Your task to perform on an android device: check data usage Image 0: 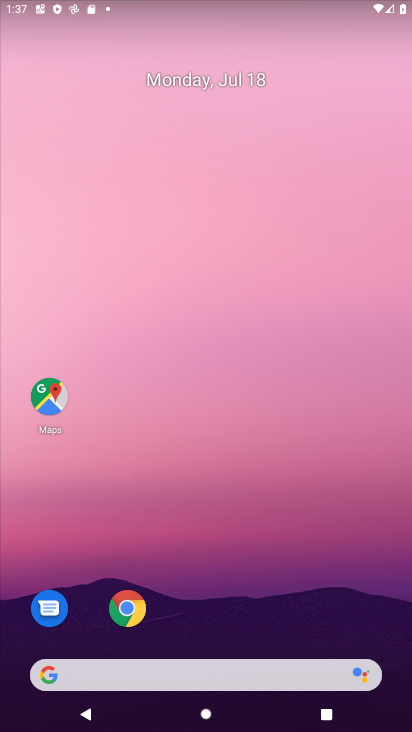
Step 0: drag from (381, 635) to (2, 169)
Your task to perform on an android device: check data usage Image 1: 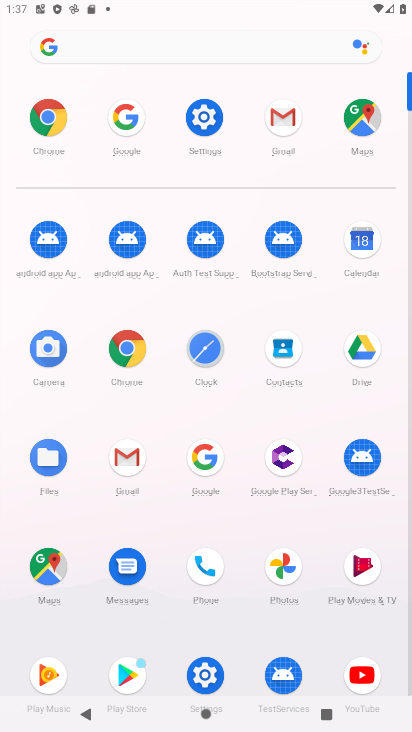
Step 1: click (213, 658)
Your task to perform on an android device: check data usage Image 2: 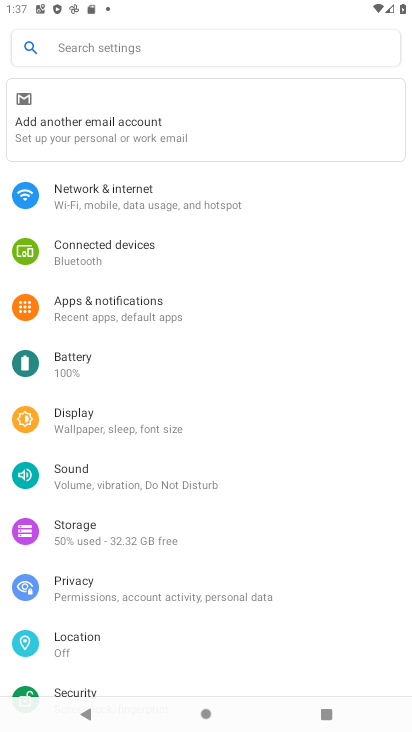
Step 2: click (130, 196)
Your task to perform on an android device: check data usage Image 3: 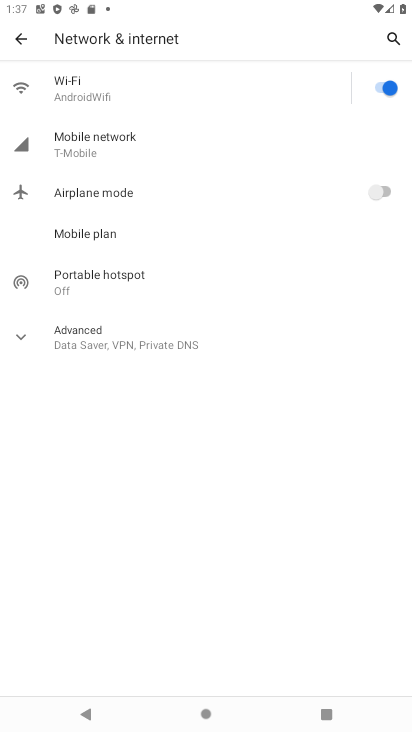
Step 3: click (113, 133)
Your task to perform on an android device: check data usage Image 4: 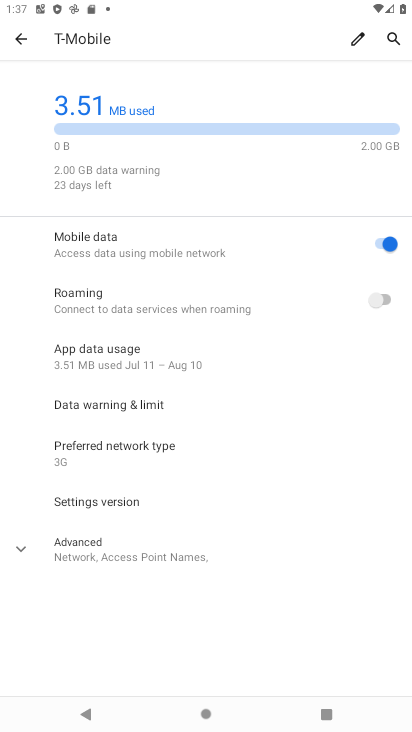
Step 4: click (101, 352)
Your task to perform on an android device: check data usage Image 5: 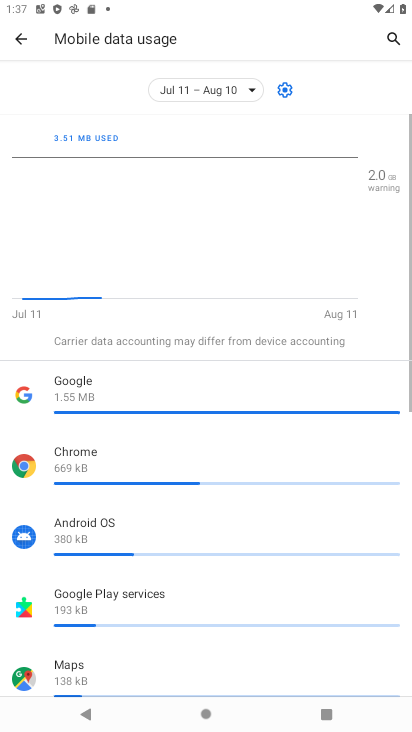
Step 5: task complete